Your task to perform on an android device: What's the weather like in Beijing? Image 0: 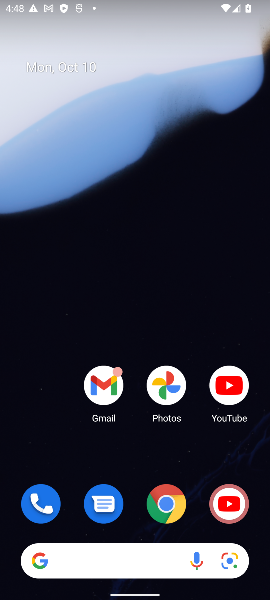
Step 0: drag from (80, 512) to (112, 102)
Your task to perform on an android device: What's the weather like in Beijing? Image 1: 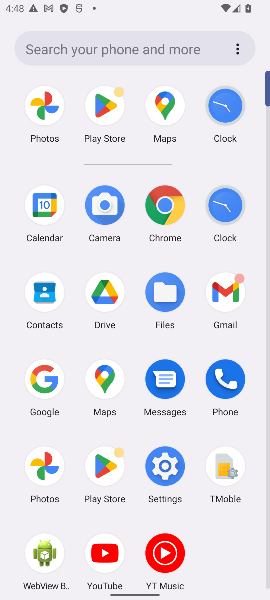
Step 1: click (162, 221)
Your task to perform on an android device: What's the weather like in Beijing? Image 2: 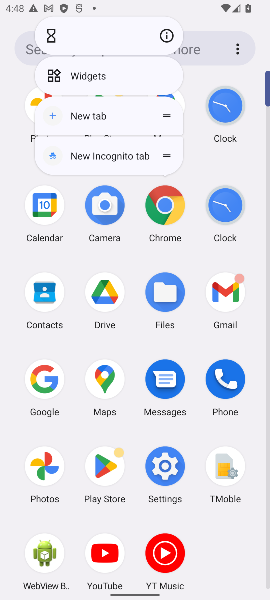
Step 2: click (165, 198)
Your task to perform on an android device: What's the weather like in Beijing? Image 3: 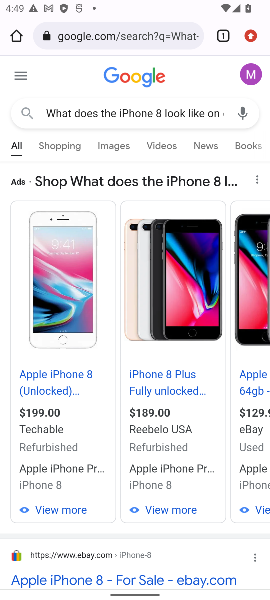
Step 3: click (158, 111)
Your task to perform on an android device: What's the weather like in Beijing? Image 4: 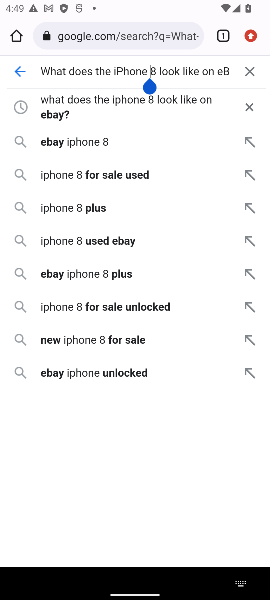
Step 4: click (150, 38)
Your task to perform on an android device: What's the weather like in Beijing? Image 5: 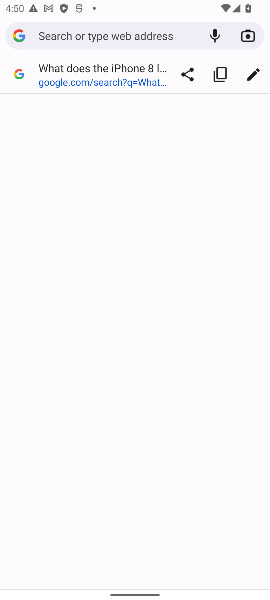
Step 5: type "What's the weather like in Beijing?"
Your task to perform on an android device: What's the weather like in Beijing? Image 6: 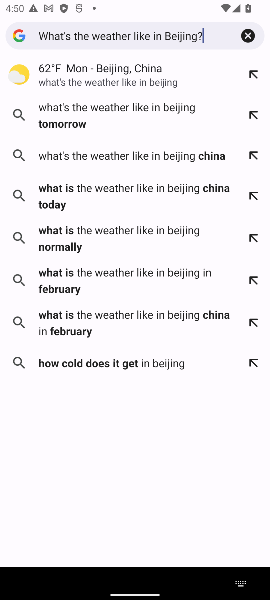
Step 6: press enter
Your task to perform on an android device: What's the weather like in Beijing? Image 7: 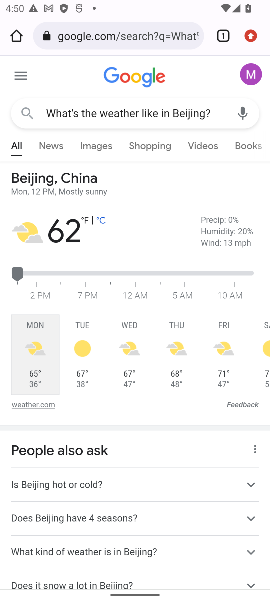
Step 7: task complete